Your task to perform on an android device: check google app version Image 0: 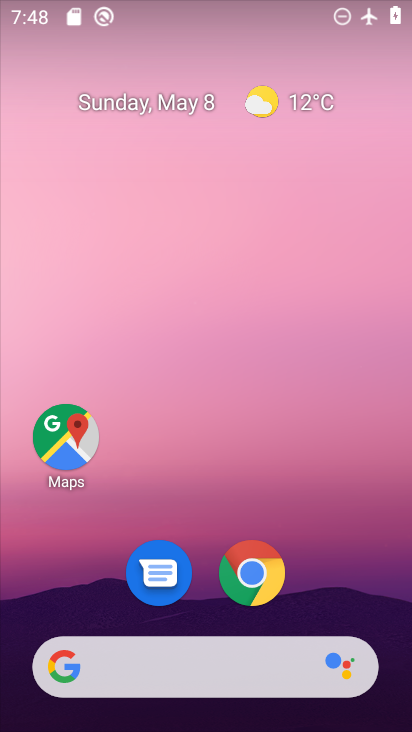
Step 0: drag from (361, 605) to (367, 0)
Your task to perform on an android device: check google app version Image 1: 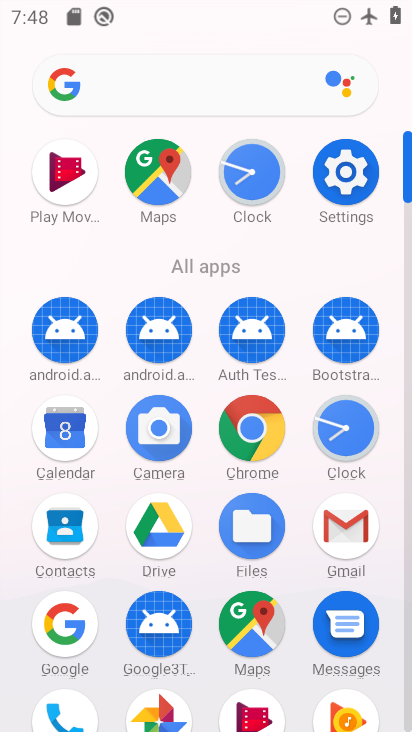
Step 1: click (59, 626)
Your task to perform on an android device: check google app version Image 2: 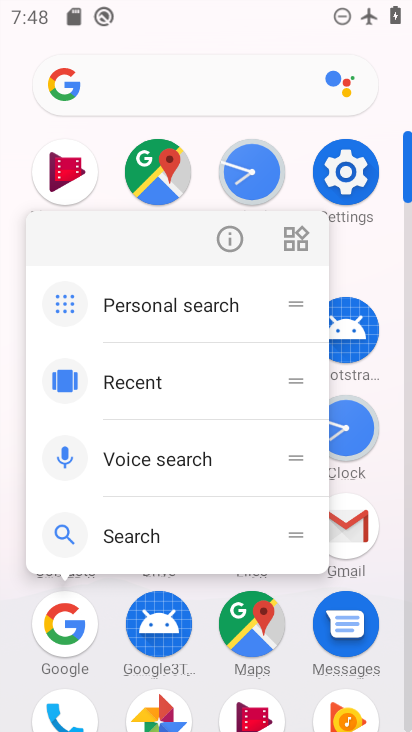
Step 2: click (233, 237)
Your task to perform on an android device: check google app version Image 3: 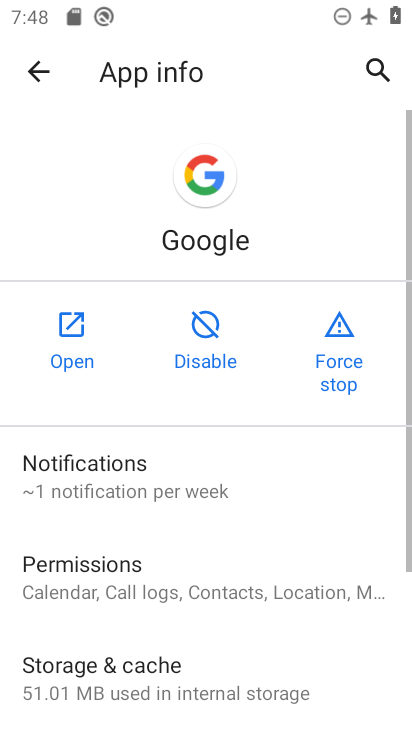
Step 3: drag from (320, 678) to (332, 116)
Your task to perform on an android device: check google app version Image 4: 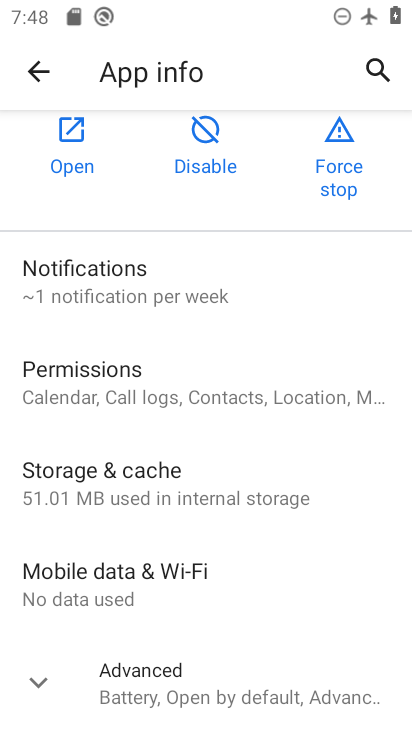
Step 4: click (37, 695)
Your task to perform on an android device: check google app version Image 5: 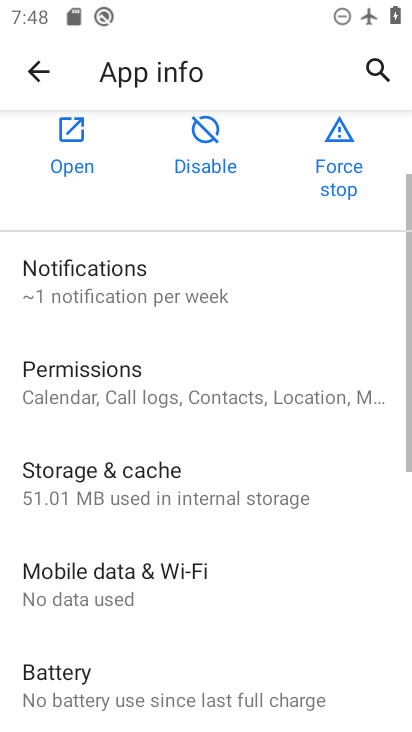
Step 5: task complete